Your task to perform on an android device: Open Yahoo.com Image 0: 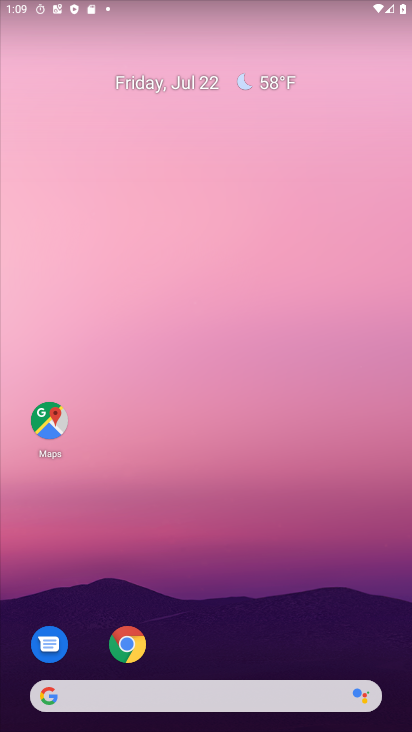
Step 0: drag from (192, 628) to (229, 201)
Your task to perform on an android device: Open Yahoo.com Image 1: 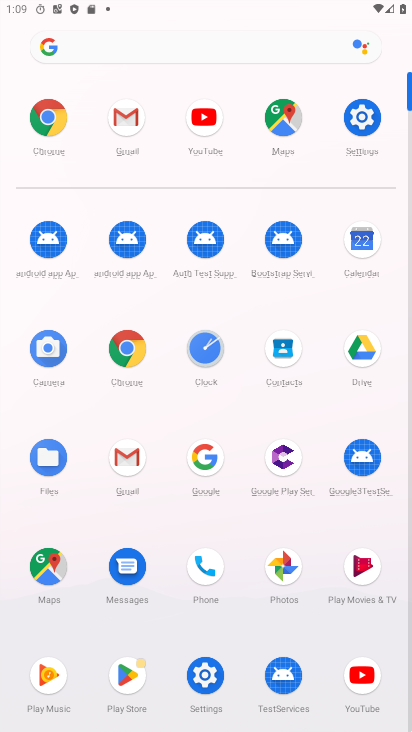
Step 1: drag from (240, 608) to (218, 327)
Your task to perform on an android device: Open Yahoo.com Image 2: 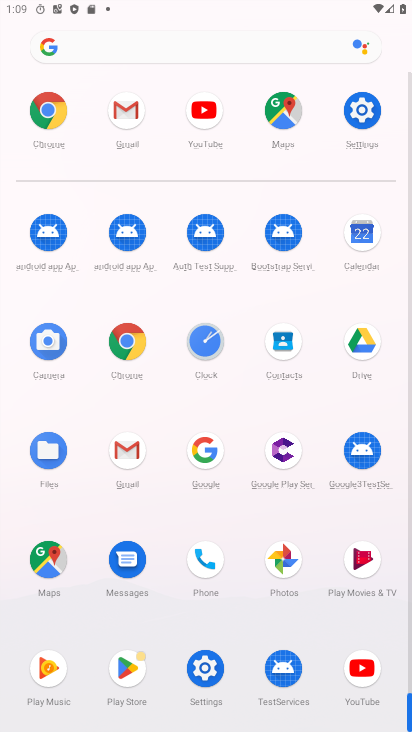
Step 2: click (114, 46)
Your task to perform on an android device: Open Yahoo.com Image 3: 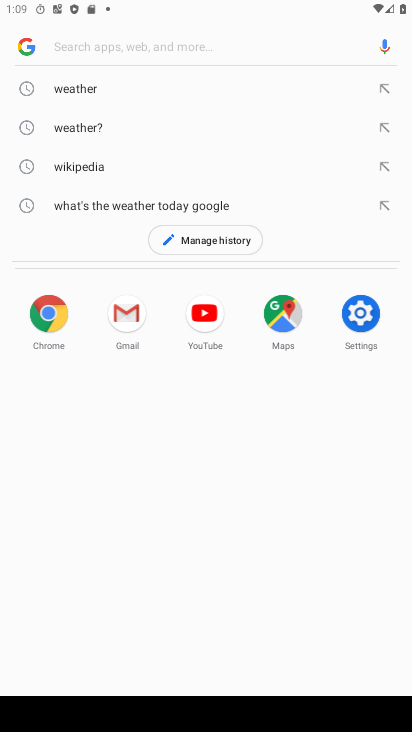
Step 3: click (83, 43)
Your task to perform on an android device: Open Yahoo.com Image 4: 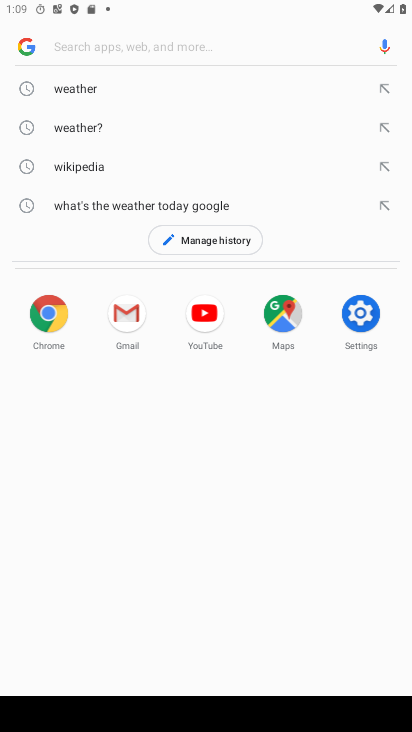
Step 4: click (71, 44)
Your task to perform on an android device: Open Yahoo.com Image 5: 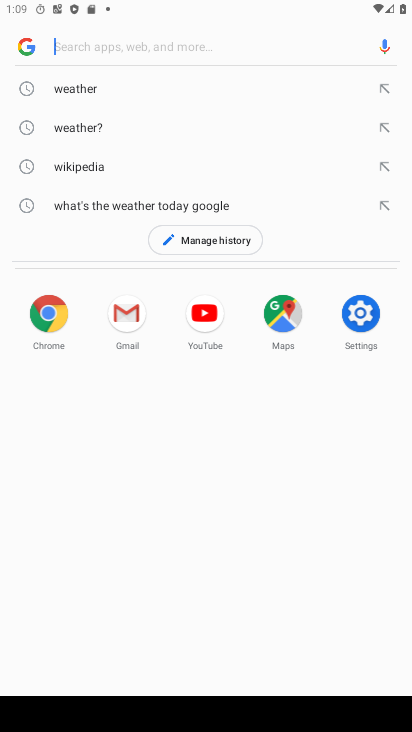
Step 5: type "Yahoo.com"
Your task to perform on an android device: Open Yahoo.com Image 6: 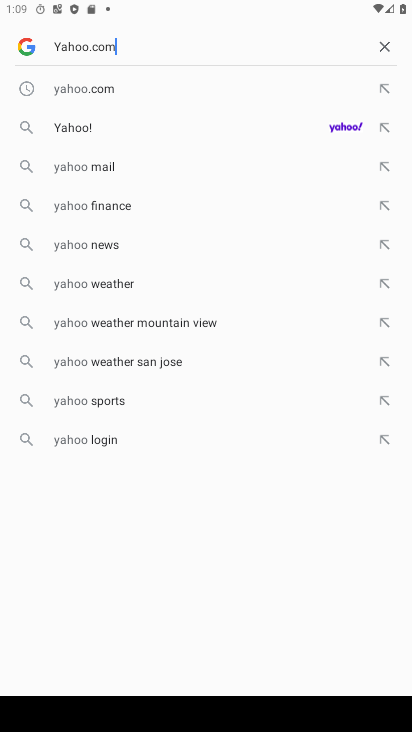
Step 6: type ""
Your task to perform on an android device: Open Yahoo.com Image 7: 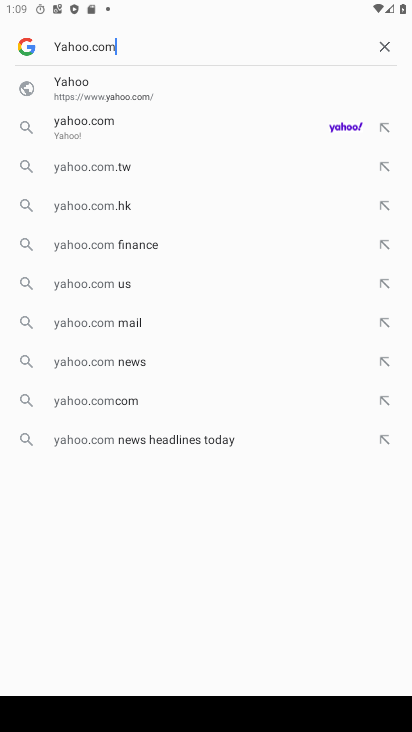
Step 7: click (107, 123)
Your task to perform on an android device: Open Yahoo.com Image 8: 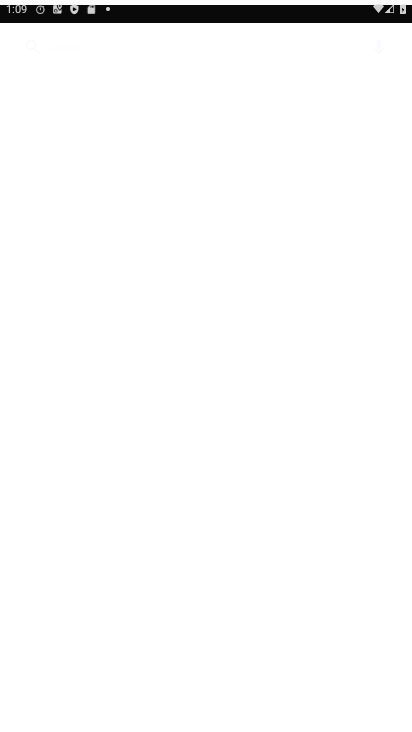
Step 8: drag from (254, 539) to (272, 297)
Your task to perform on an android device: Open Yahoo.com Image 9: 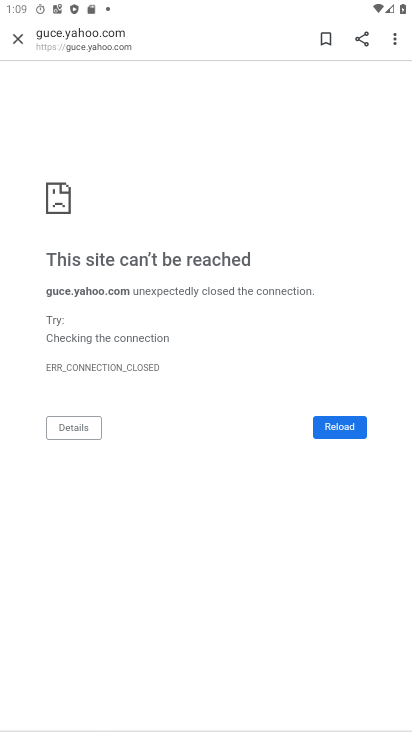
Step 9: drag from (145, 401) to (210, 593)
Your task to perform on an android device: Open Yahoo.com Image 10: 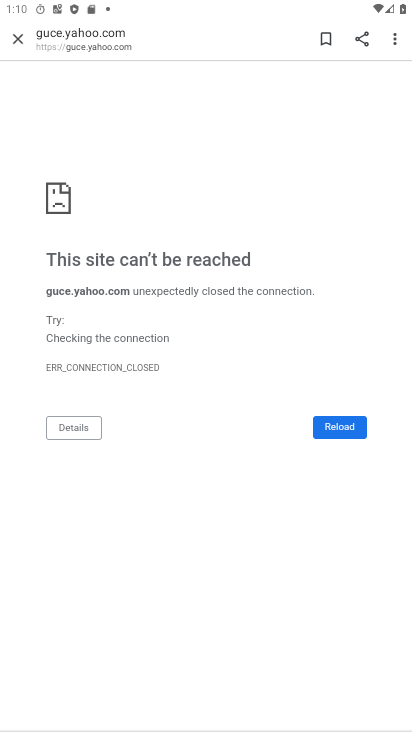
Step 10: click (19, 36)
Your task to perform on an android device: Open Yahoo.com Image 11: 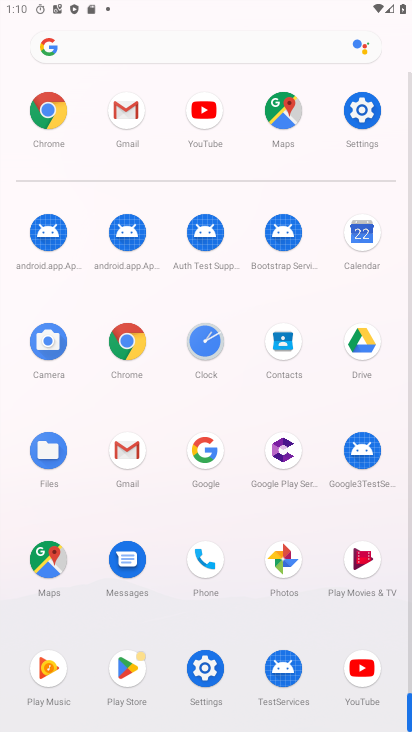
Step 11: click (124, 356)
Your task to perform on an android device: Open Yahoo.com Image 12: 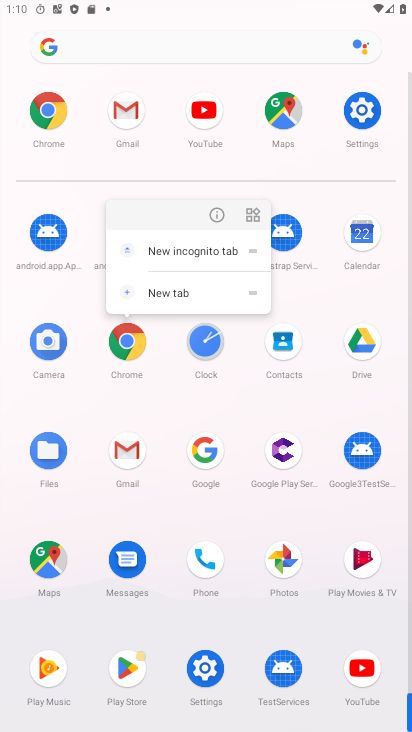
Step 12: click (210, 208)
Your task to perform on an android device: Open Yahoo.com Image 13: 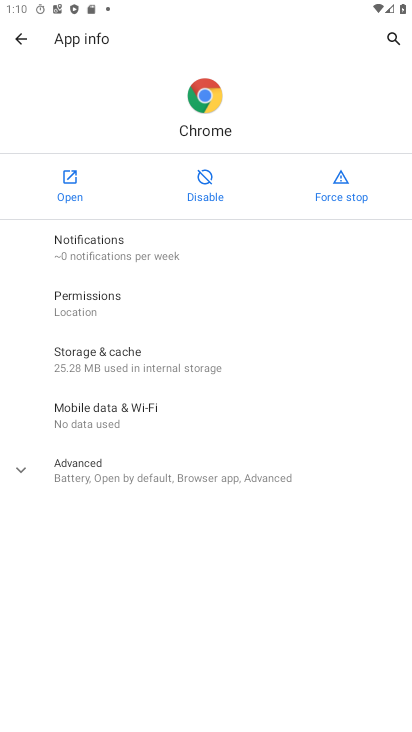
Step 13: click (72, 180)
Your task to perform on an android device: Open Yahoo.com Image 14: 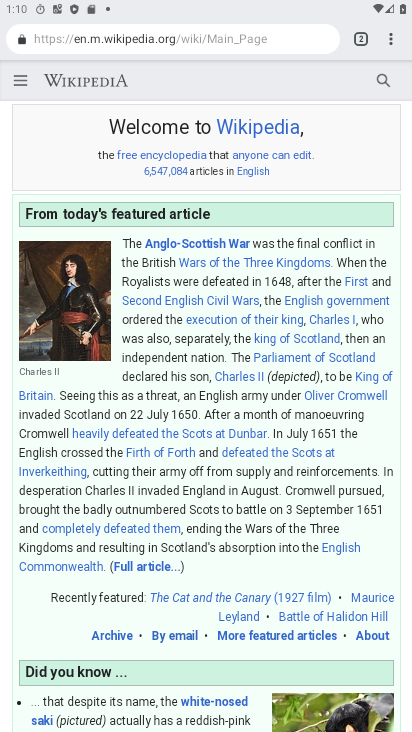
Step 14: click (158, 42)
Your task to perform on an android device: Open Yahoo.com Image 15: 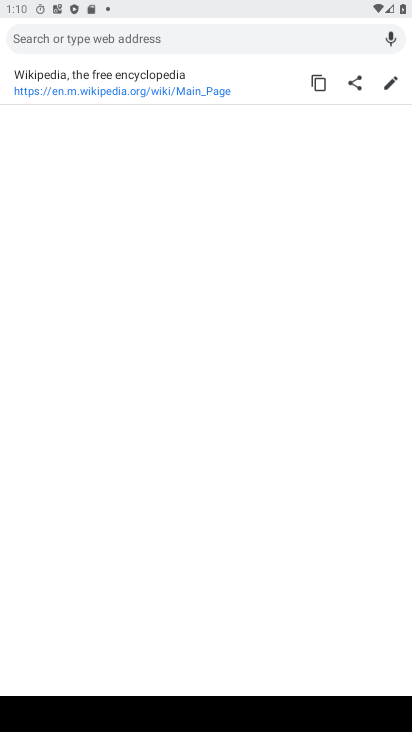
Step 15: type "yahoo.com"
Your task to perform on an android device: Open Yahoo.com Image 16: 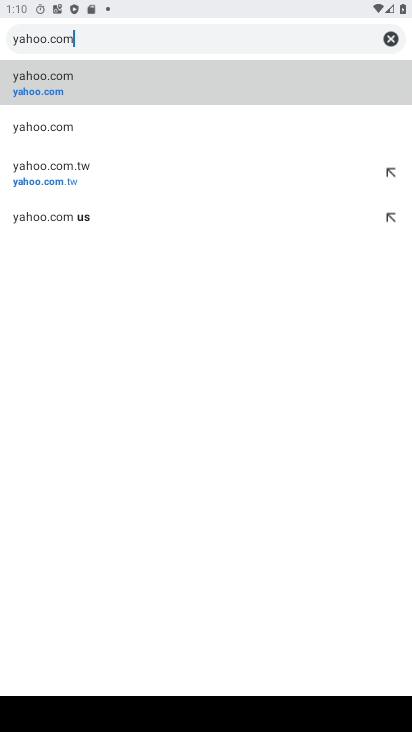
Step 16: click (6, 90)
Your task to perform on an android device: Open Yahoo.com Image 17: 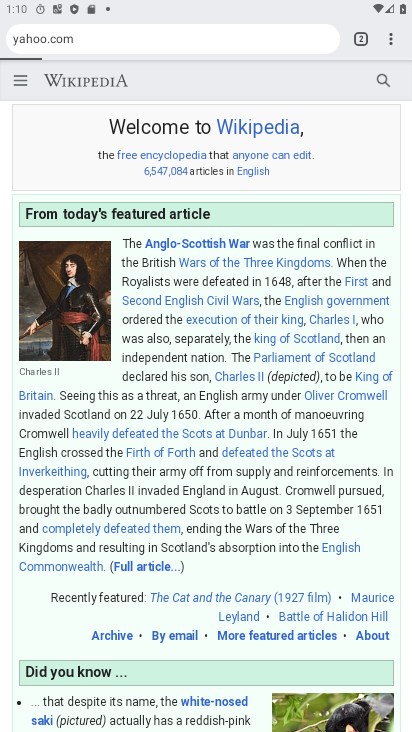
Step 17: task complete